Your task to perform on an android device: open chrome privacy settings Image 0: 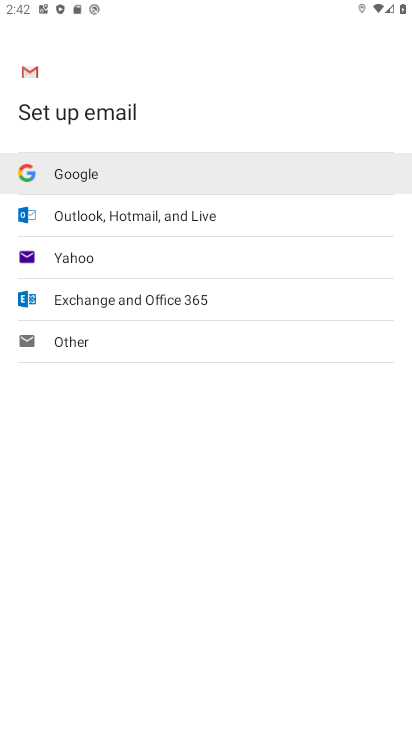
Step 0: press home button
Your task to perform on an android device: open chrome privacy settings Image 1: 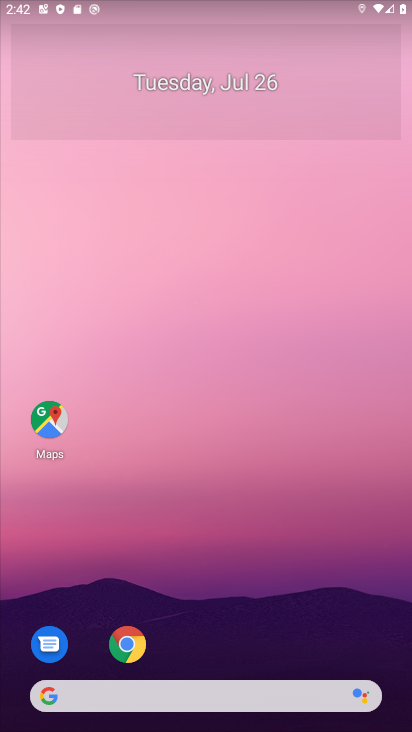
Step 1: click (133, 646)
Your task to perform on an android device: open chrome privacy settings Image 2: 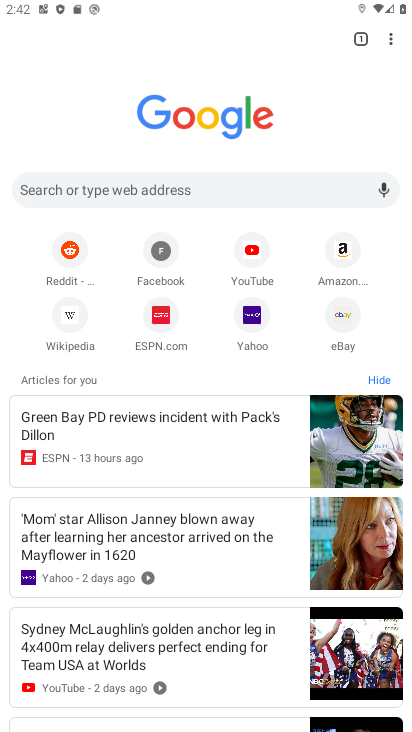
Step 2: click (391, 39)
Your task to perform on an android device: open chrome privacy settings Image 3: 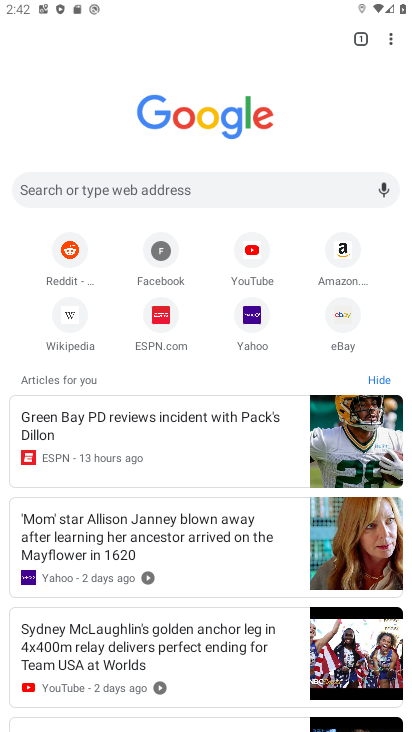
Step 3: drag from (386, 34) to (262, 324)
Your task to perform on an android device: open chrome privacy settings Image 4: 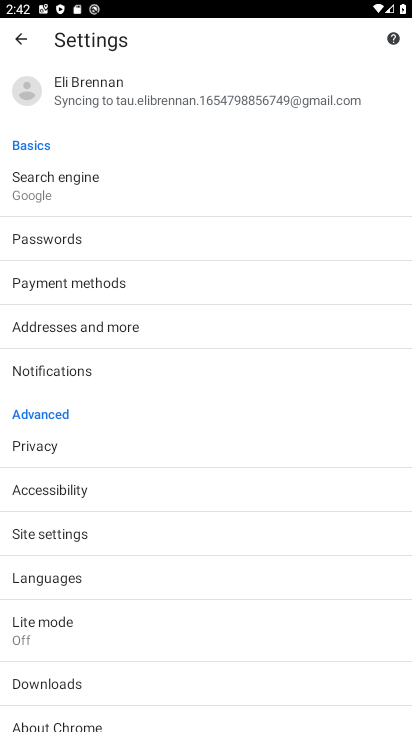
Step 4: click (43, 442)
Your task to perform on an android device: open chrome privacy settings Image 5: 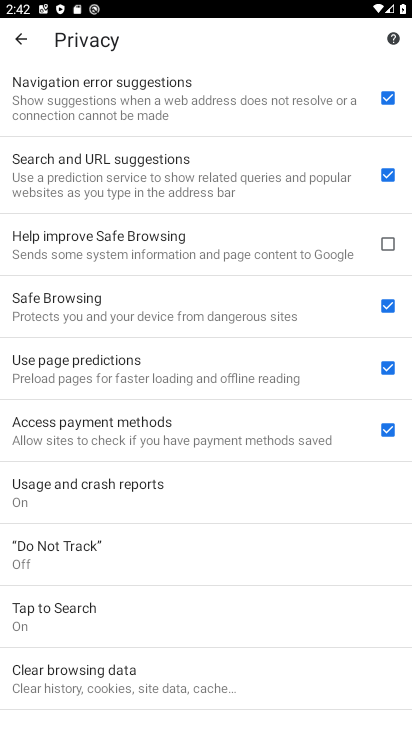
Step 5: task complete